Your task to perform on an android device: Open network settings Image 0: 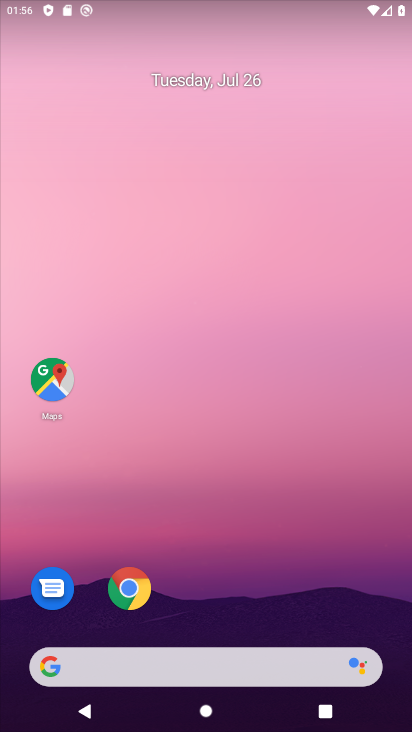
Step 0: drag from (314, 220) to (257, 17)
Your task to perform on an android device: Open network settings Image 1: 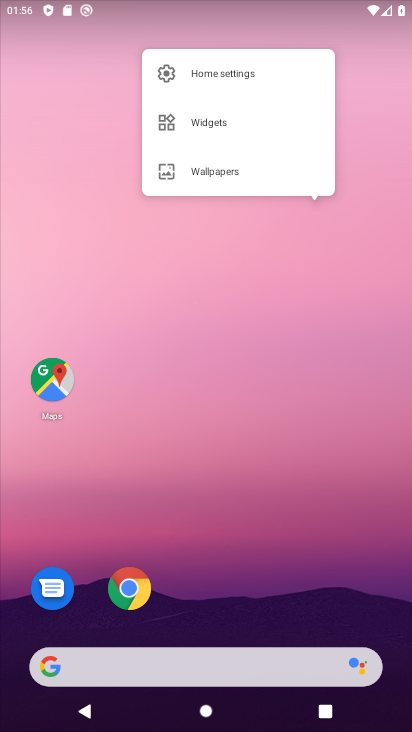
Step 1: drag from (402, 622) to (332, 51)
Your task to perform on an android device: Open network settings Image 2: 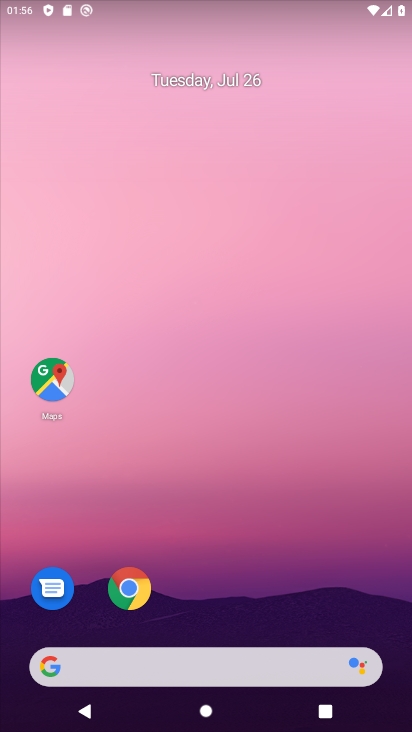
Step 2: drag from (258, 629) to (208, 192)
Your task to perform on an android device: Open network settings Image 3: 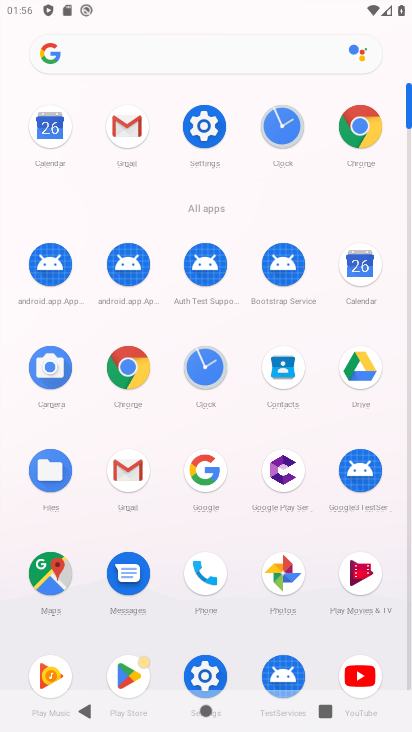
Step 3: click (202, 136)
Your task to perform on an android device: Open network settings Image 4: 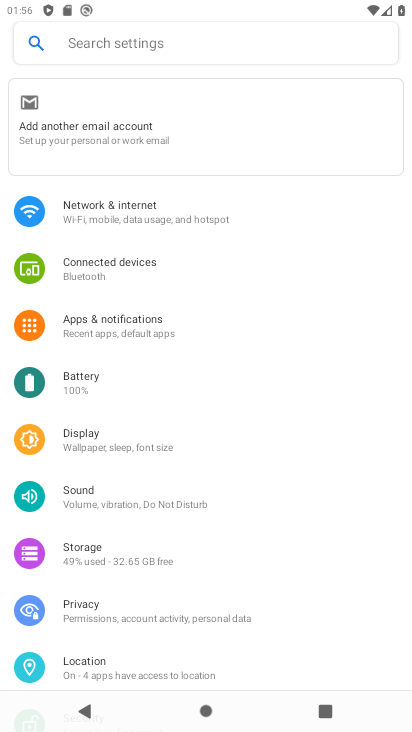
Step 4: click (218, 207)
Your task to perform on an android device: Open network settings Image 5: 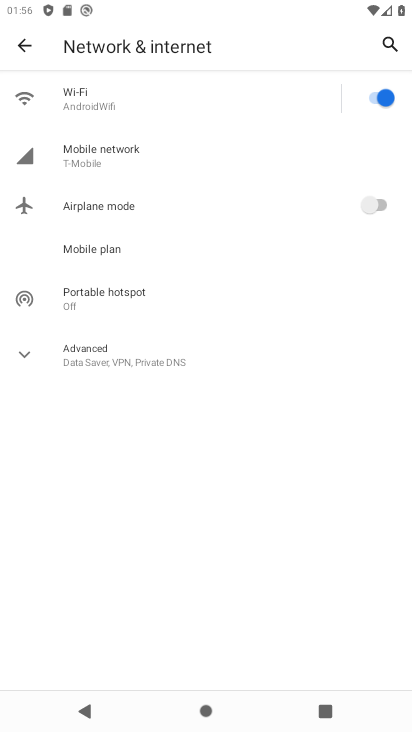
Step 5: task complete